Your task to perform on an android device: Open notification settings Image 0: 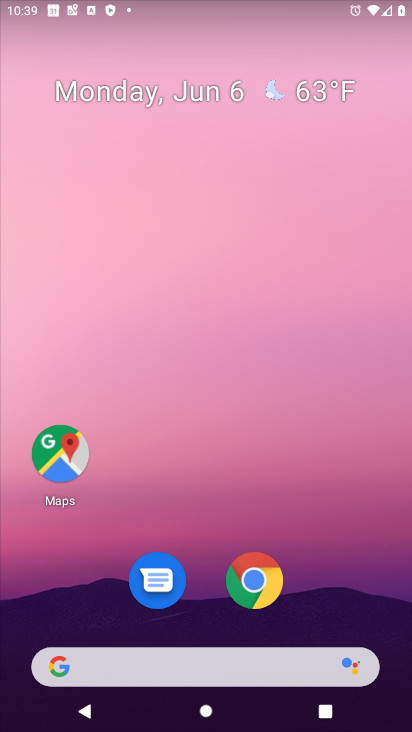
Step 0: drag from (361, 582) to (250, 0)
Your task to perform on an android device: Open notification settings Image 1: 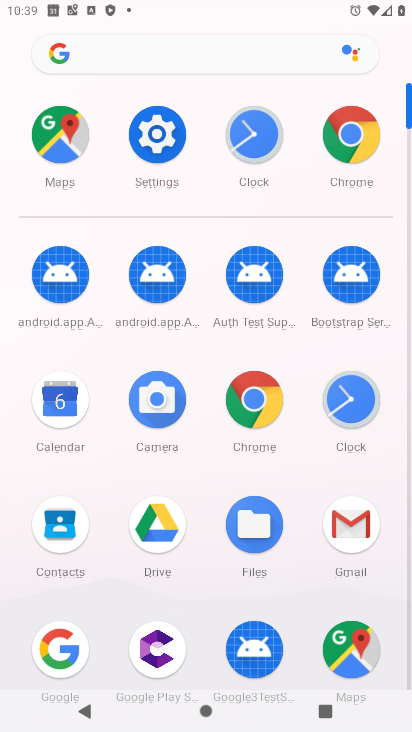
Step 1: click (160, 139)
Your task to perform on an android device: Open notification settings Image 2: 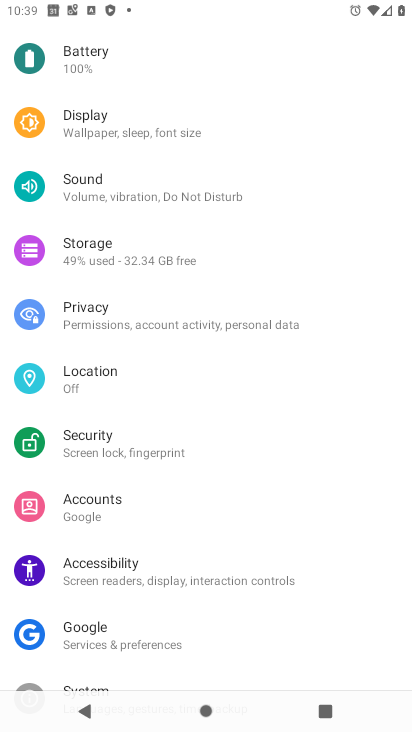
Step 2: drag from (161, 134) to (207, 610)
Your task to perform on an android device: Open notification settings Image 3: 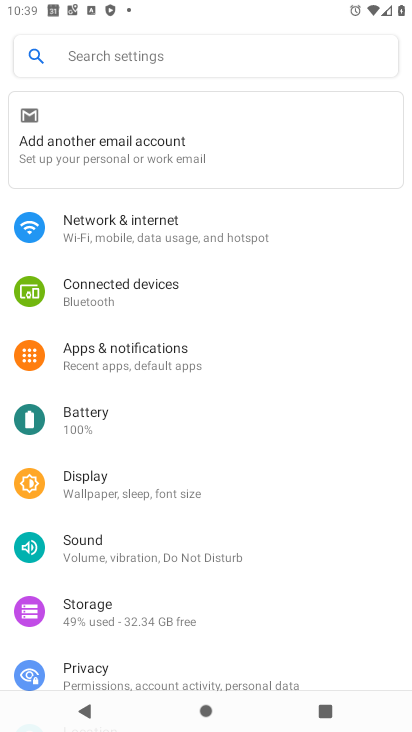
Step 3: click (142, 343)
Your task to perform on an android device: Open notification settings Image 4: 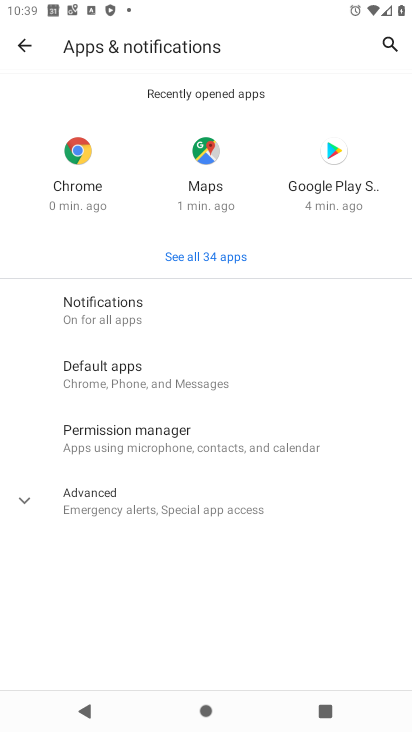
Step 4: click (123, 303)
Your task to perform on an android device: Open notification settings Image 5: 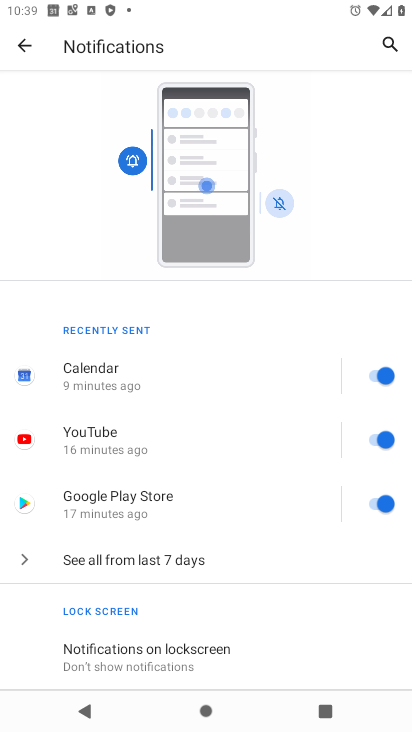
Step 5: task complete